Your task to perform on an android device: Turn off the flashlight Image 0: 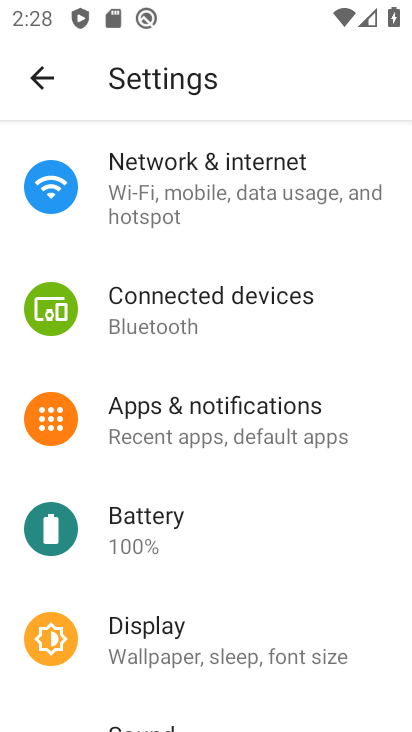
Step 0: drag from (273, 12) to (248, 428)
Your task to perform on an android device: Turn off the flashlight Image 1: 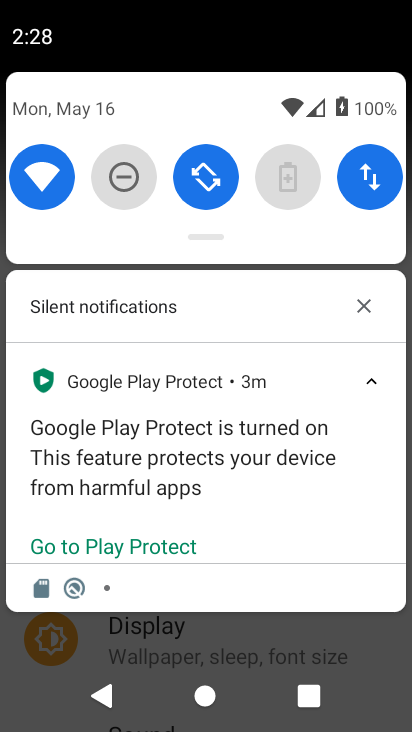
Step 1: drag from (247, 203) to (269, 670)
Your task to perform on an android device: Turn off the flashlight Image 2: 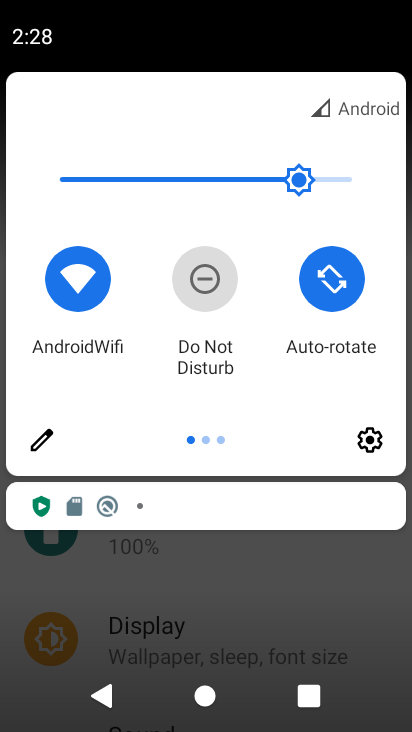
Step 2: drag from (278, 409) to (265, 725)
Your task to perform on an android device: Turn off the flashlight Image 3: 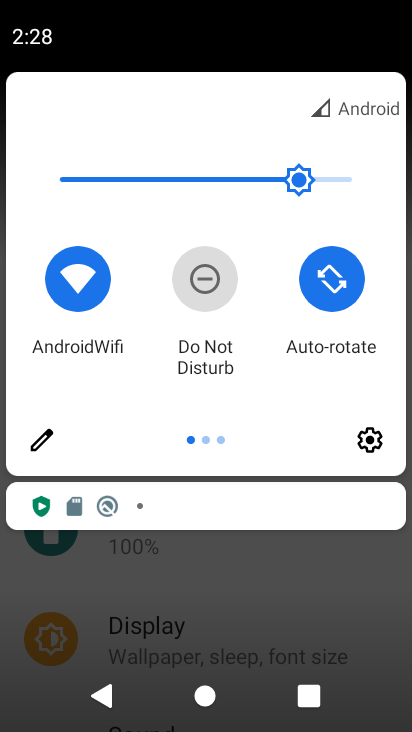
Step 3: click (27, 446)
Your task to perform on an android device: Turn off the flashlight Image 4: 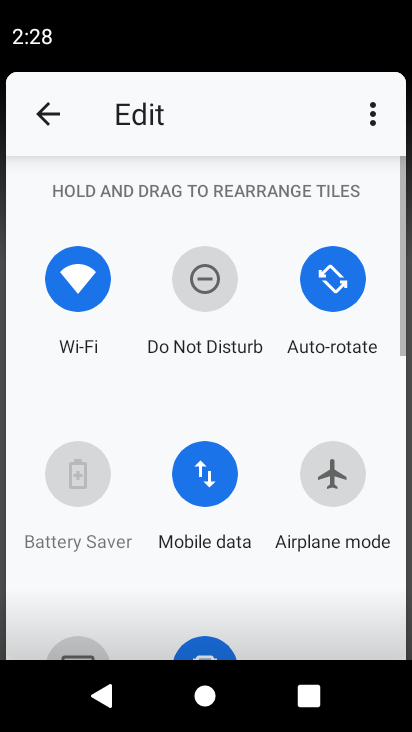
Step 4: task complete